Your task to perform on an android device: What's on my calendar today? Image 0: 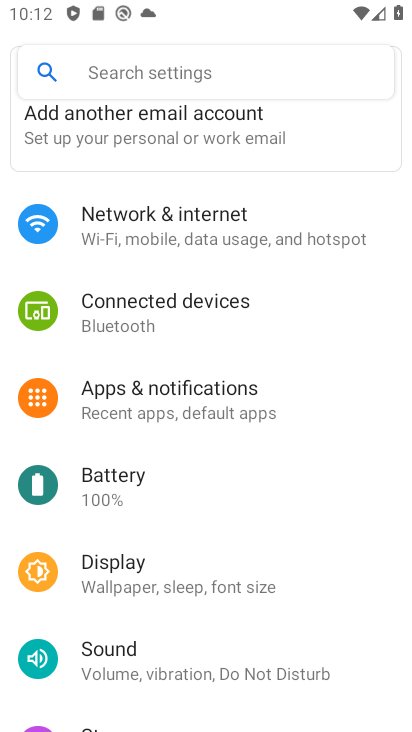
Step 0: press home button
Your task to perform on an android device: What's on my calendar today? Image 1: 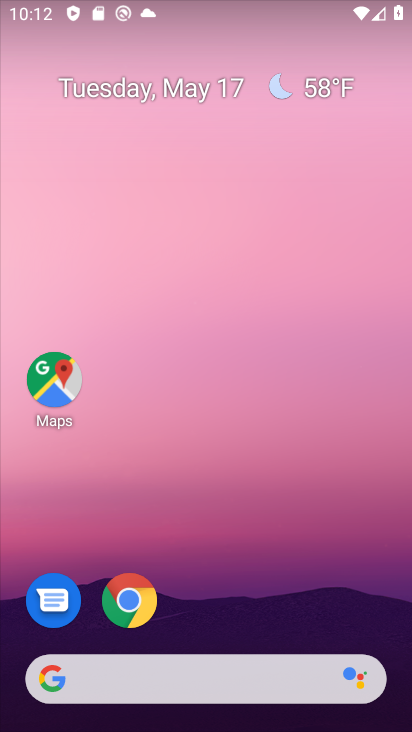
Step 1: drag from (260, 589) to (275, 228)
Your task to perform on an android device: What's on my calendar today? Image 2: 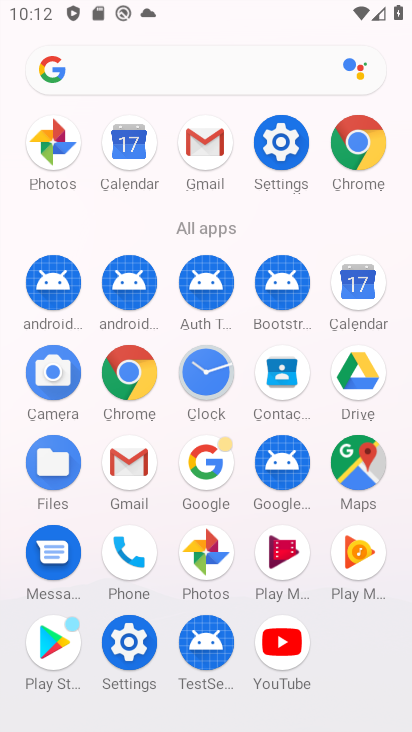
Step 2: click (366, 297)
Your task to perform on an android device: What's on my calendar today? Image 3: 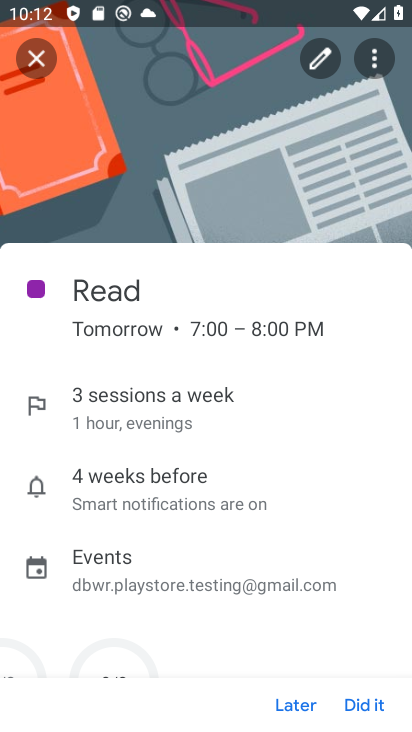
Step 3: press back button
Your task to perform on an android device: What's on my calendar today? Image 4: 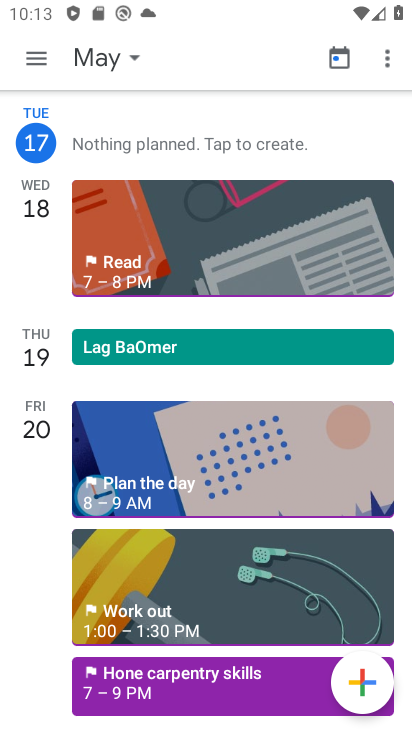
Step 4: click (180, 247)
Your task to perform on an android device: What's on my calendar today? Image 5: 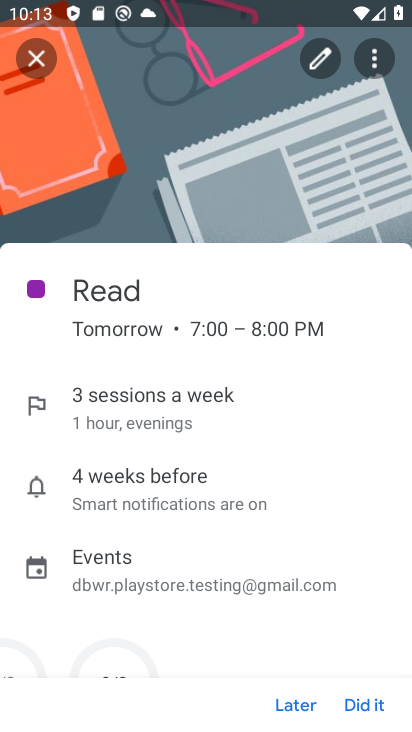
Step 5: task complete